Your task to perform on an android device: turn off improve location accuracy Image 0: 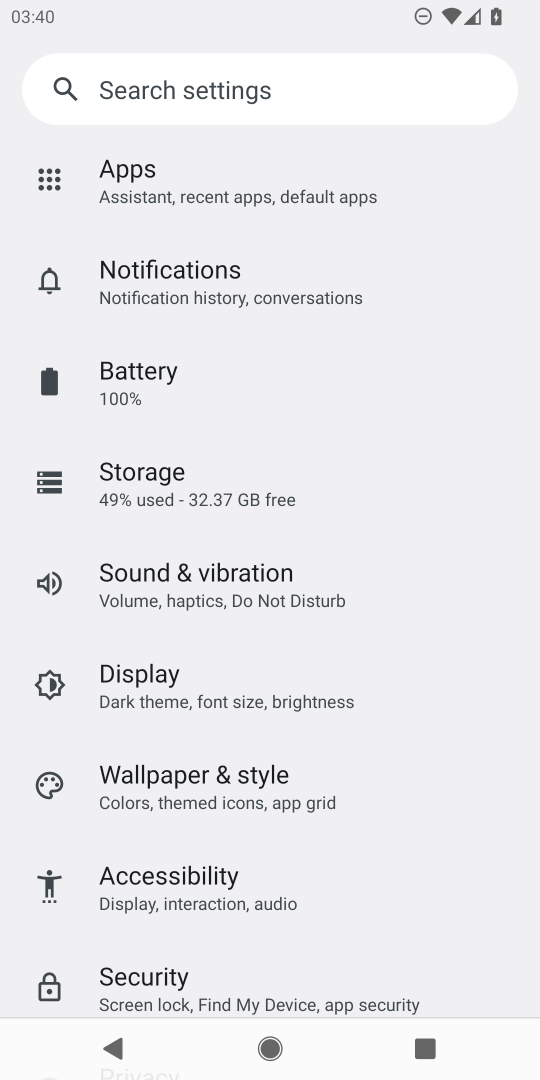
Step 0: drag from (138, 929) to (175, 397)
Your task to perform on an android device: turn off improve location accuracy Image 1: 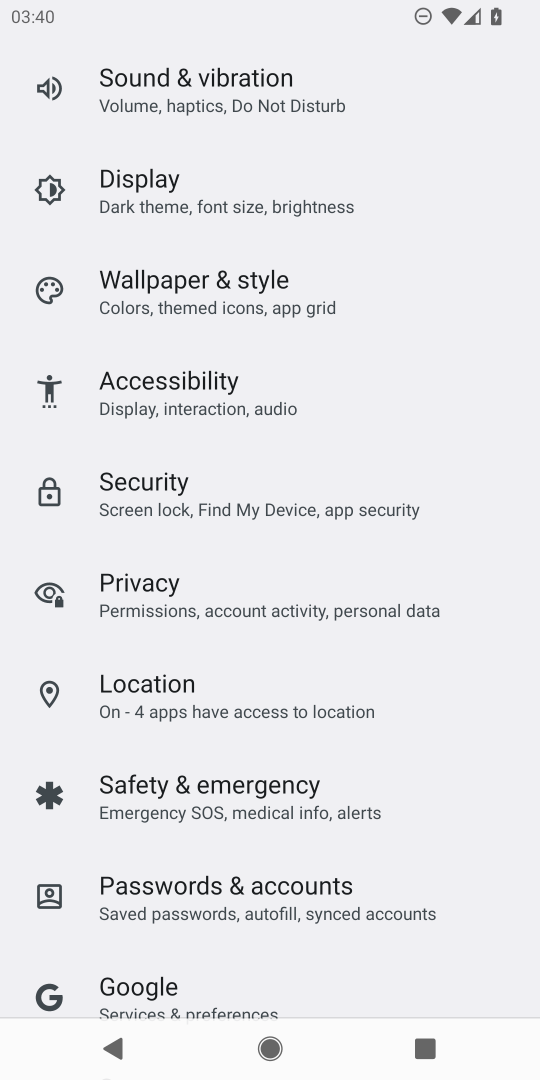
Step 1: click (137, 693)
Your task to perform on an android device: turn off improve location accuracy Image 2: 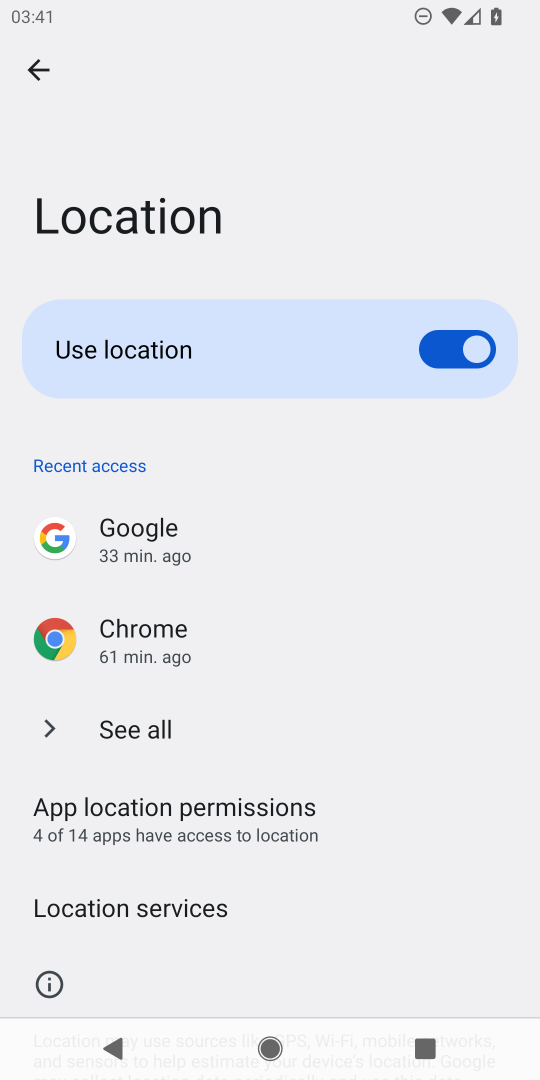
Step 2: drag from (181, 952) to (203, 499)
Your task to perform on an android device: turn off improve location accuracy Image 3: 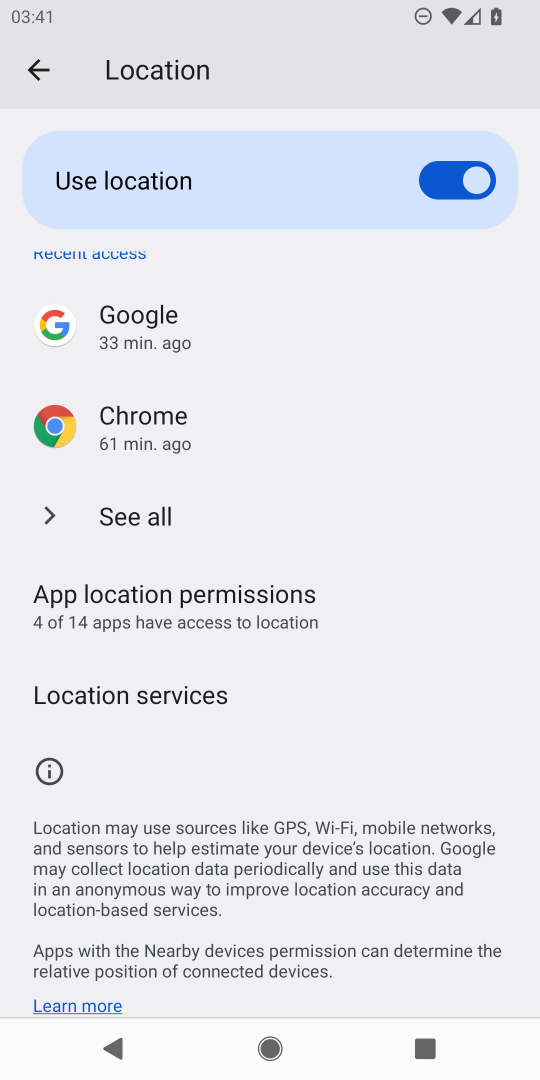
Step 3: click (125, 688)
Your task to perform on an android device: turn off improve location accuracy Image 4: 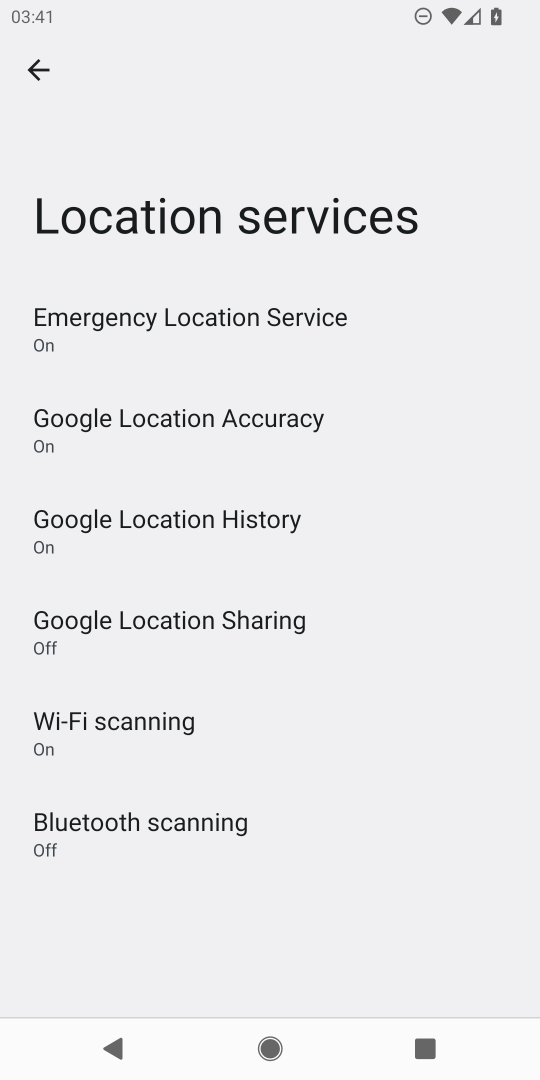
Step 4: click (178, 417)
Your task to perform on an android device: turn off improve location accuracy Image 5: 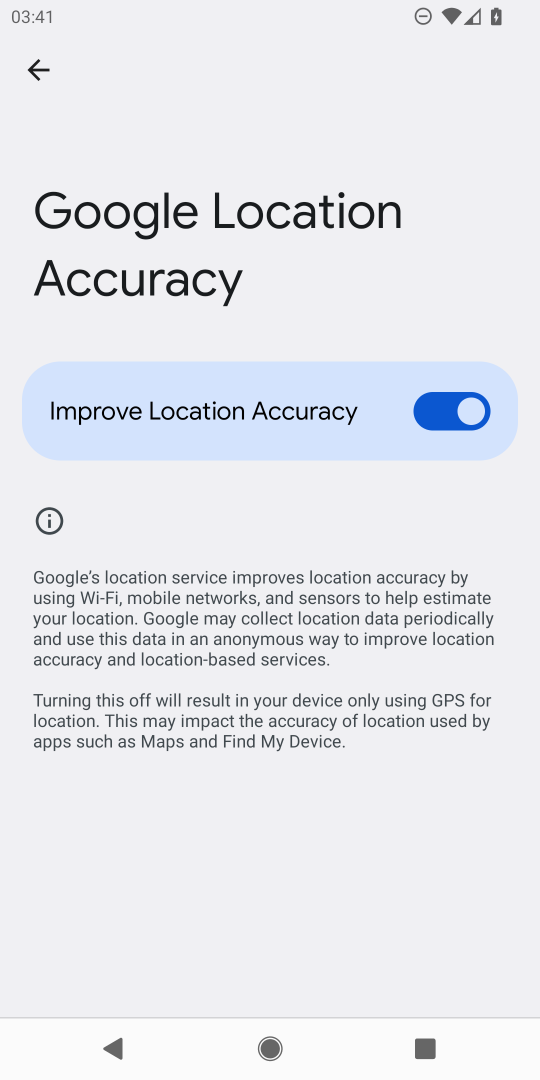
Step 5: click (436, 405)
Your task to perform on an android device: turn off improve location accuracy Image 6: 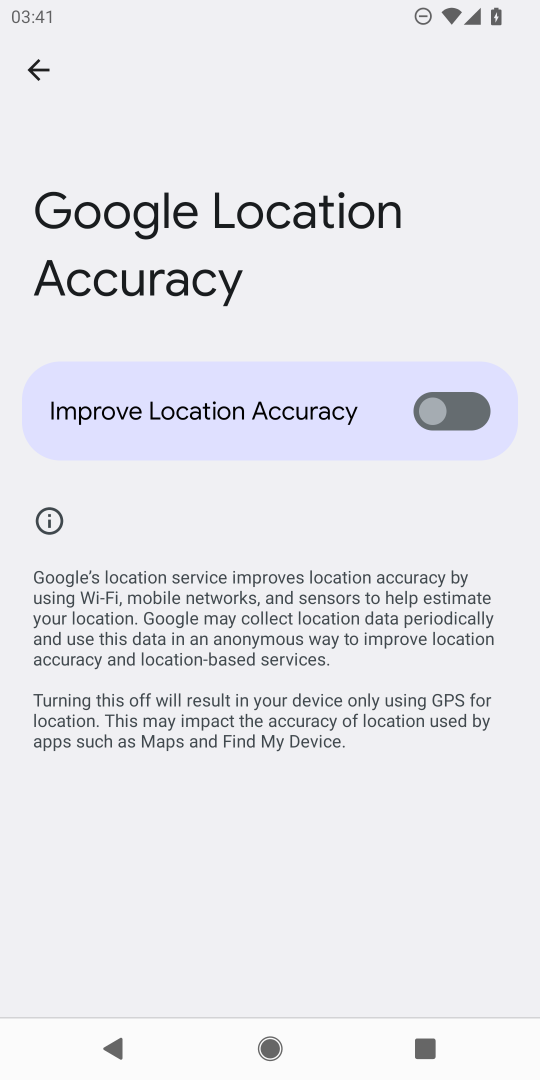
Step 6: task complete